Your task to perform on an android device: Open eBay Image 0: 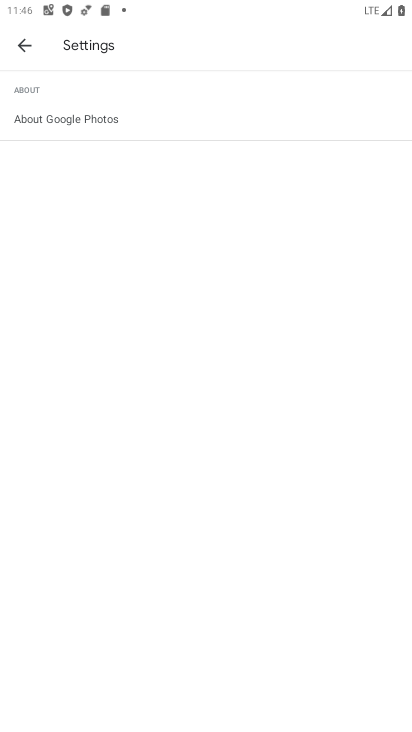
Step 0: press home button
Your task to perform on an android device: Open eBay Image 1: 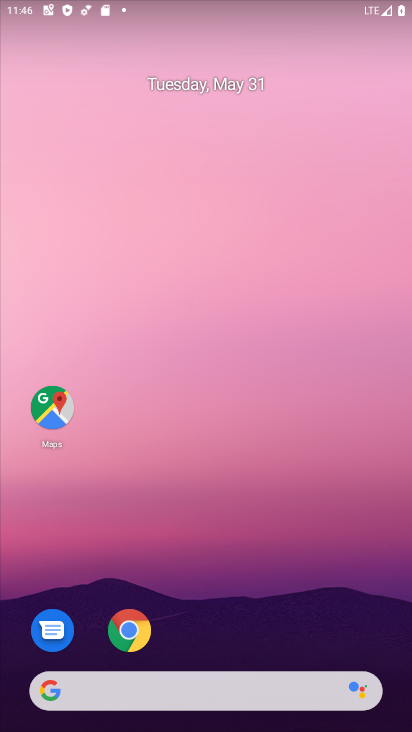
Step 1: click (206, 687)
Your task to perform on an android device: Open eBay Image 2: 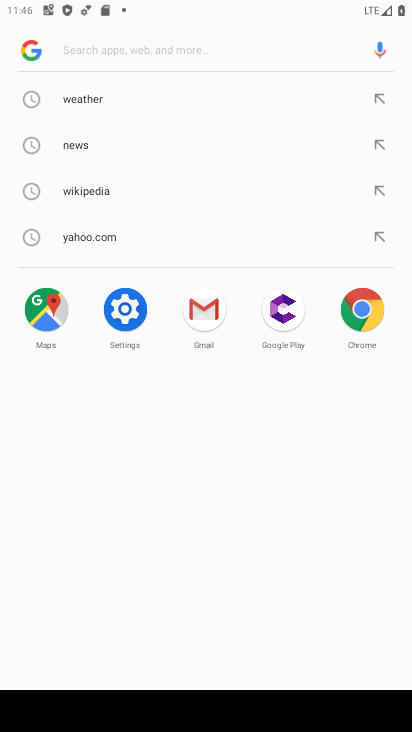
Step 2: type " eBay"
Your task to perform on an android device: Open eBay Image 3: 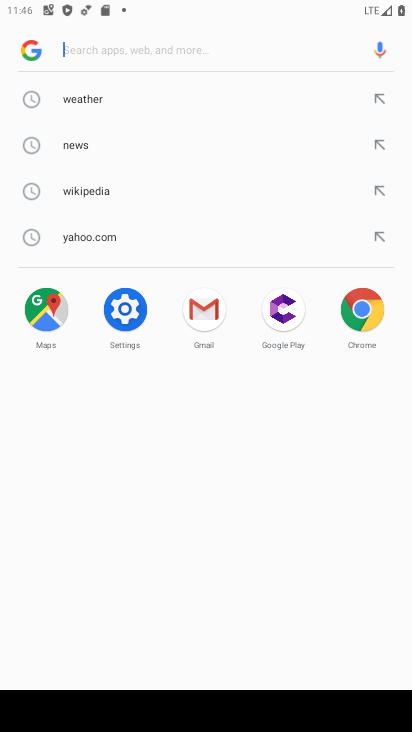
Step 3: click (169, 44)
Your task to perform on an android device: Open eBay Image 4: 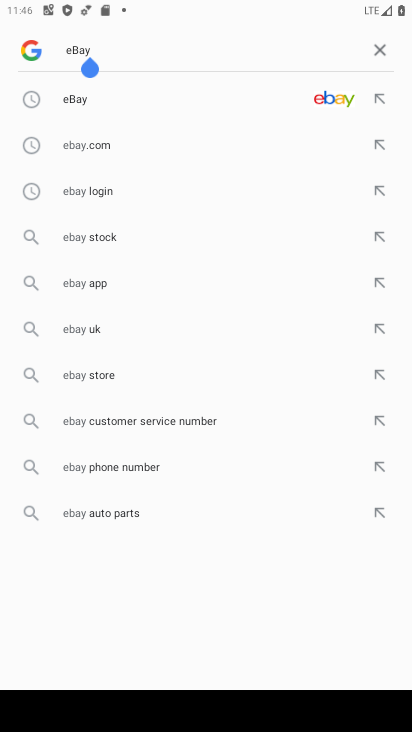
Step 4: click (85, 97)
Your task to perform on an android device: Open eBay Image 5: 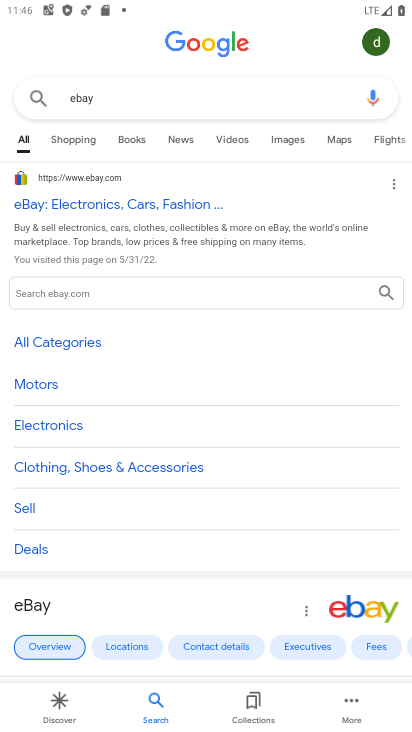
Step 5: click (67, 202)
Your task to perform on an android device: Open eBay Image 6: 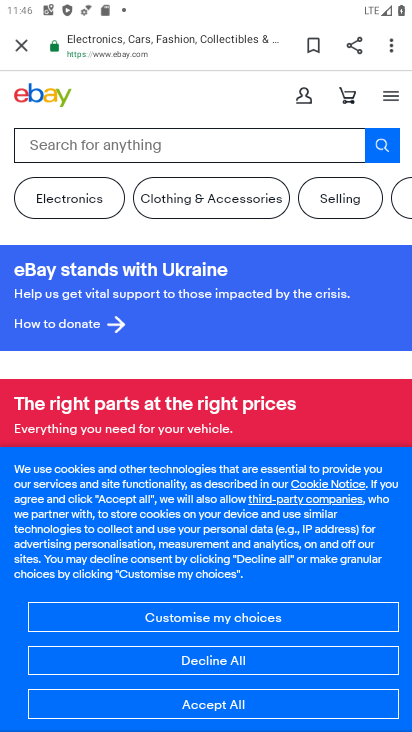
Step 6: task complete